Your task to perform on an android device: turn pop-ups off in chrome Image 0: 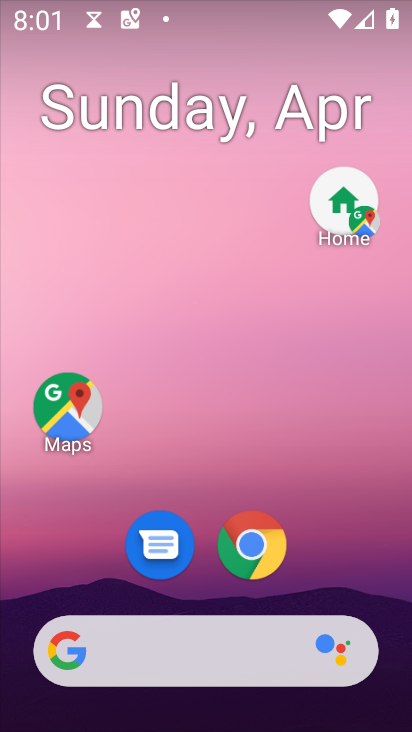
Step 0: click (276, 253)
Your task to perform on an android device: turn pop-ups off in chrome Image 1: 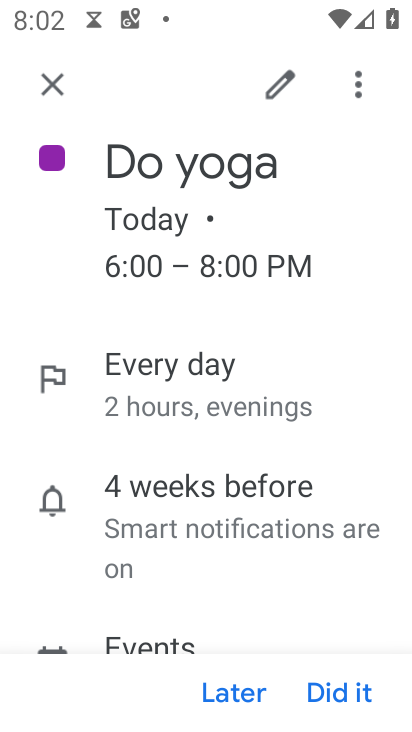
Step 1: press home button
Your task to perform on an android device: turn pop-ups off in chrome Image 2: 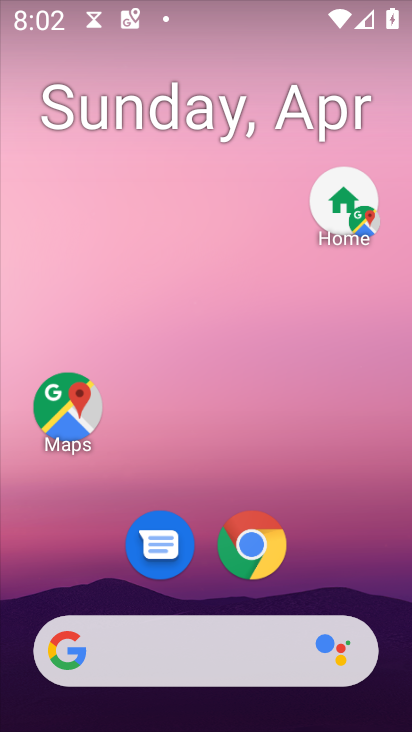
Step 2: drag from (299, 544) to (306, 278)
Your task to perform on an android device: turn pop-ups off in chrome Image 3: 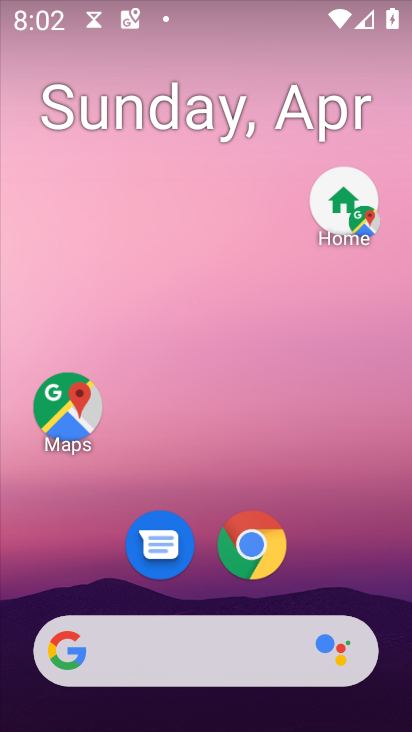
Step 3: drag from (235, 559) to (235, 275)
Your task to perform on an android device: turn pop-ups off in chrome Image 4: 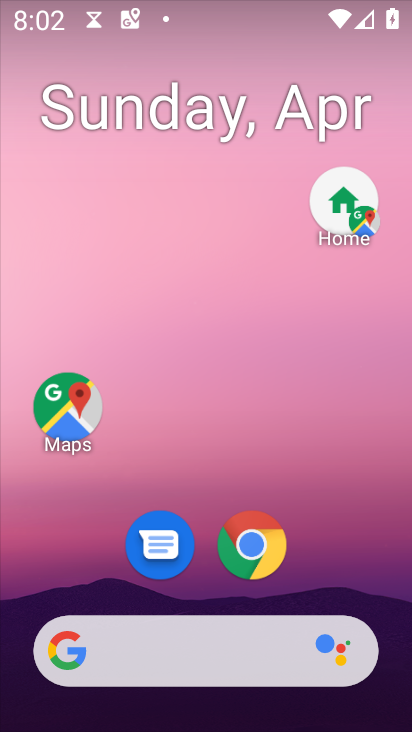
Step 4: drag from (201, 577) to (246, 51)
Your task to perform on an android device: turn pop-ups off in chrome Image 5: 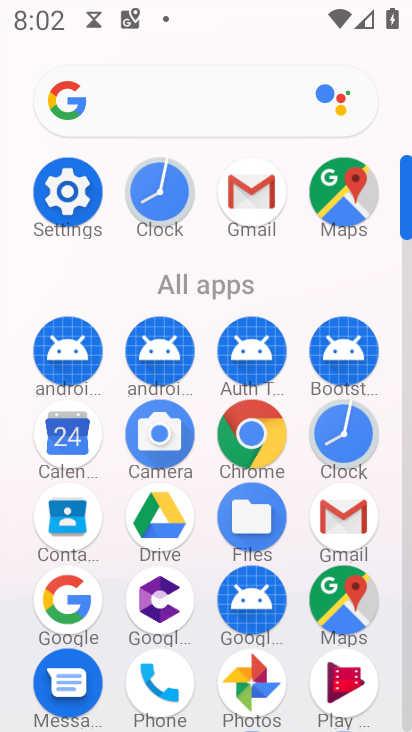
Step 5: click (248, 427)
Your task to perform on an android device: turn pop-ups off in chrome Image 6: 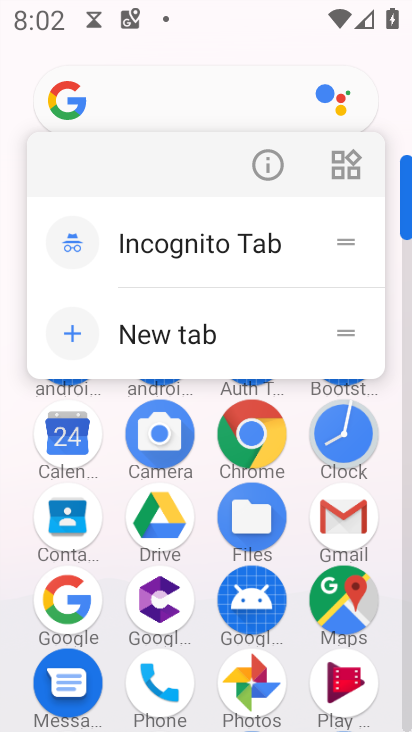
Step 6: click (248, 427)
Your task to perform on an android device: turn pop-ups off in chrome Image 7: 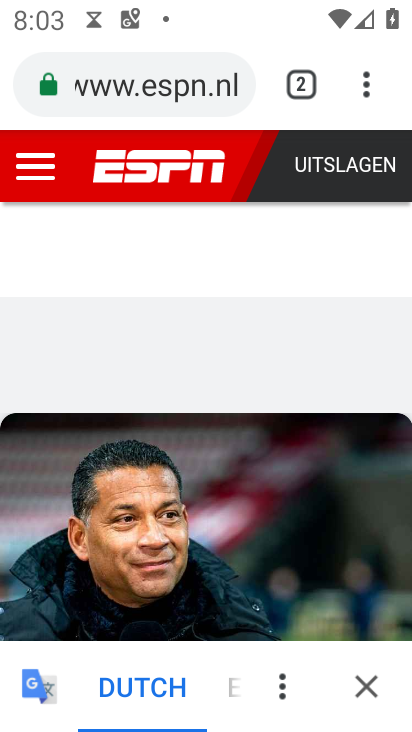
Step 7: click (356, 86)
Your task to perform on an android device: turn pop-ups off in chrome Image 8: 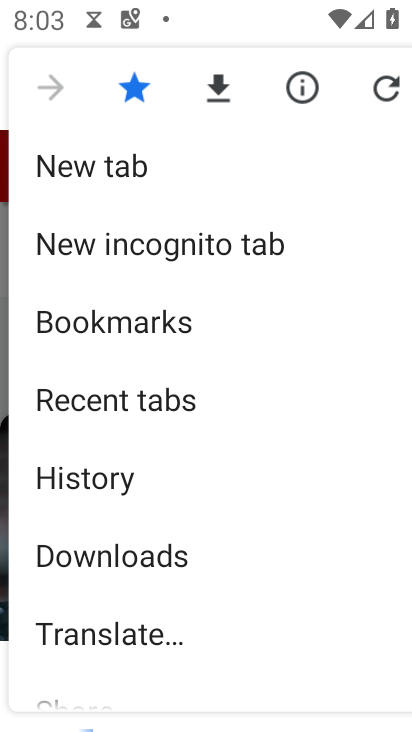
Step 8: drag from (232, 609) to (303, 122)
Your task to perform on an android device: turn pop-ups off in chrome Image 9: 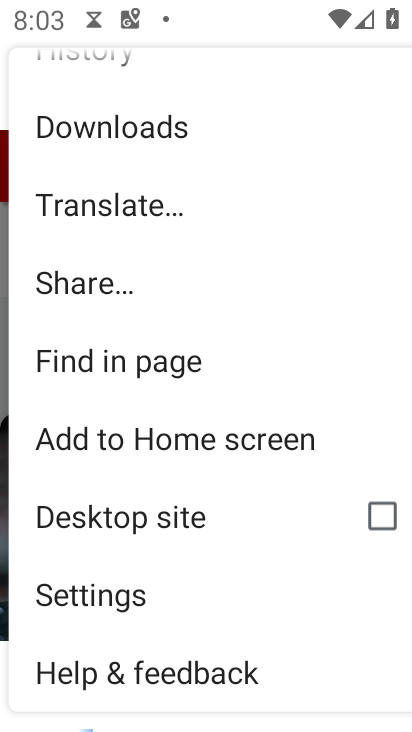
Step 9: click (142, 588)
Your task to perform on an android device: turn pop-ups off in chrome Image 10: 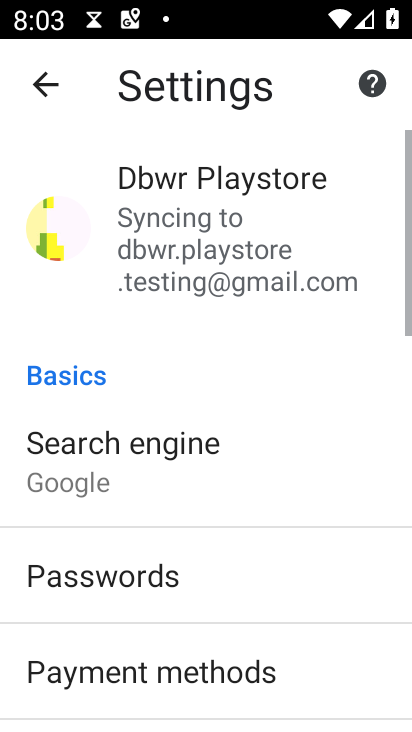
Step 10: drag from (212, 592) to (291, 99)
Your task to perform on an android device: turn pop-ups off in chrome Image 11: 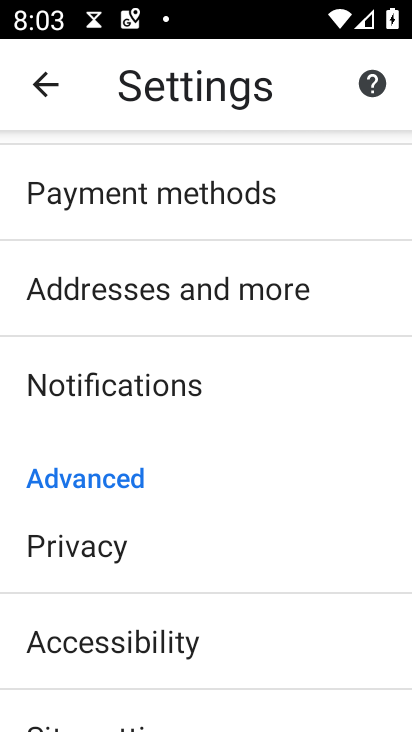
Step 11: drag from (244, 633) to (315, 174)
Your task to perform on an android device: turn pop-ups off in chrome Image 12: 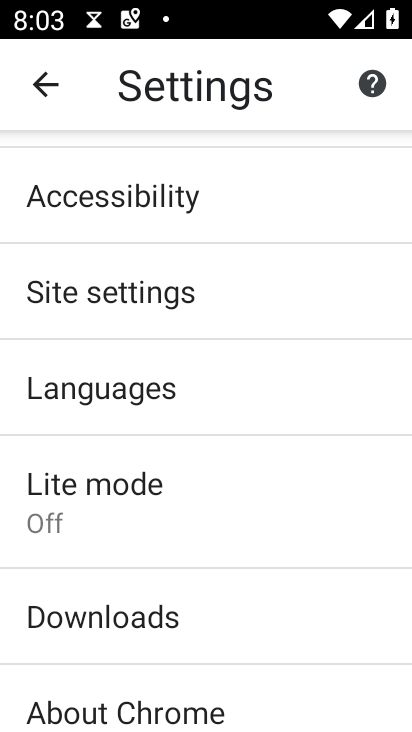
Step 12: click (142, 275)
Your task to perform on an android device: turn pop-ups off in chrome Image 13: 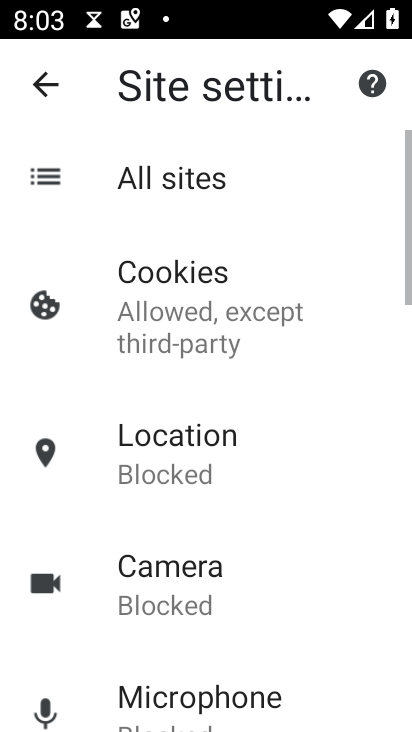
Step 13: drag from (292, 663) to (332, 270)
Your task to perform on an android device: turn pop-ups off in chrome Image 14: 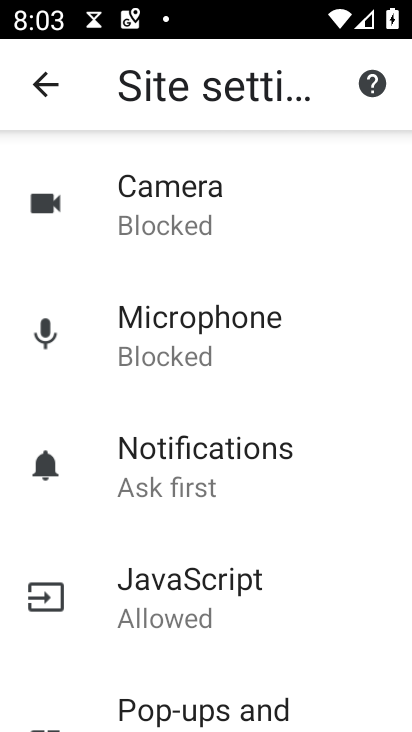
Step 14: click (250, 692)
Your task to perform on an android device: turn pop-ups off in chrome Image 15: 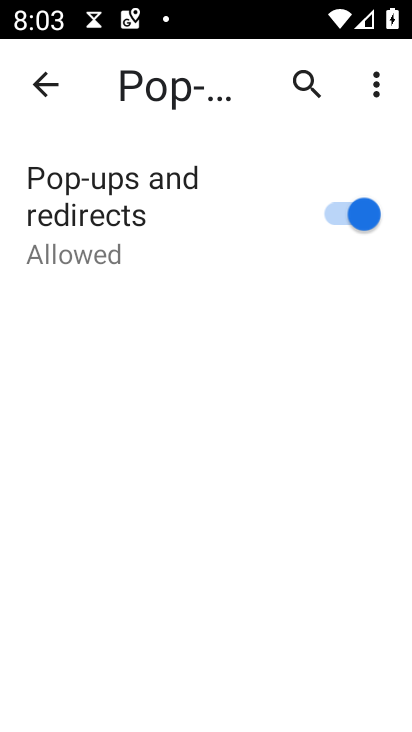
Step 15: click (350, 219)
Your task to perform on an android device: turn pop-ups off in chrome Image 16: 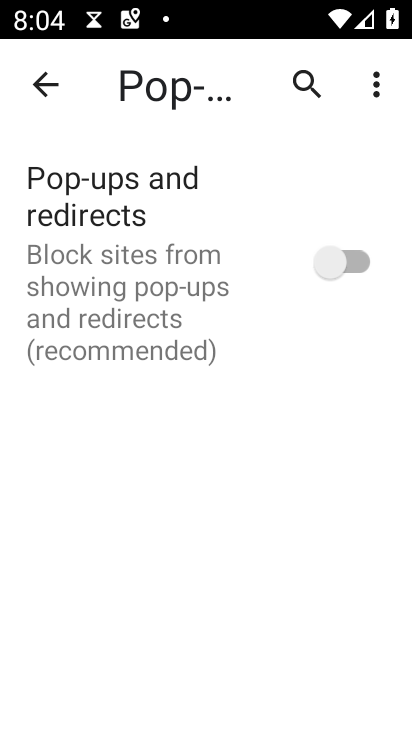
Step 16: task complete